Your task to perform on an android device: change text size in settings app Image 0: 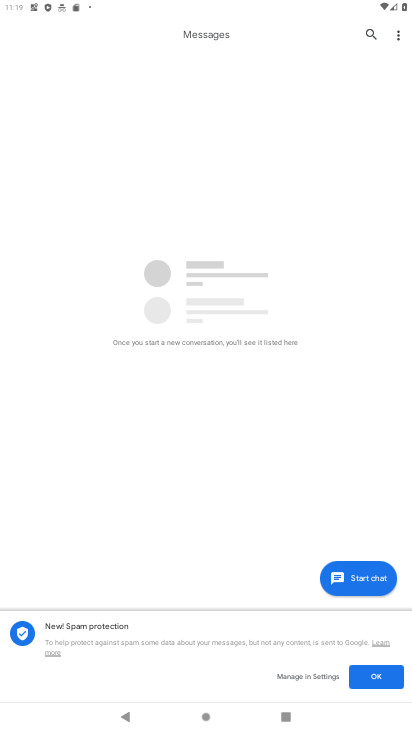
Step 0: press home button
Your task to perform on an android device: change text size in settings app Image 1: 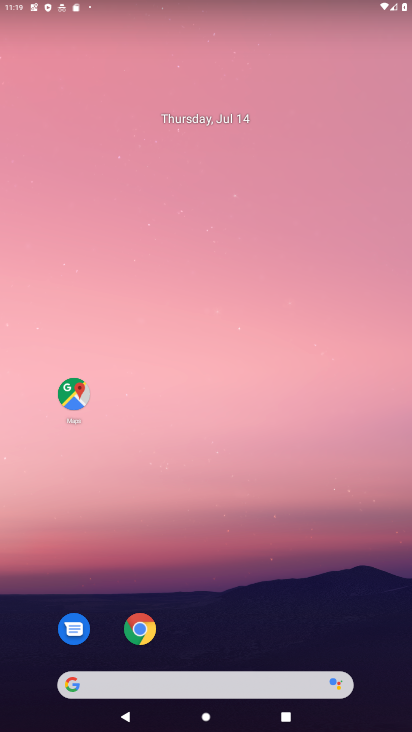
Step 1: drag from (263, 630) to (256, 186)
Your task to perform on an android device: change text size in settings app Image 2: 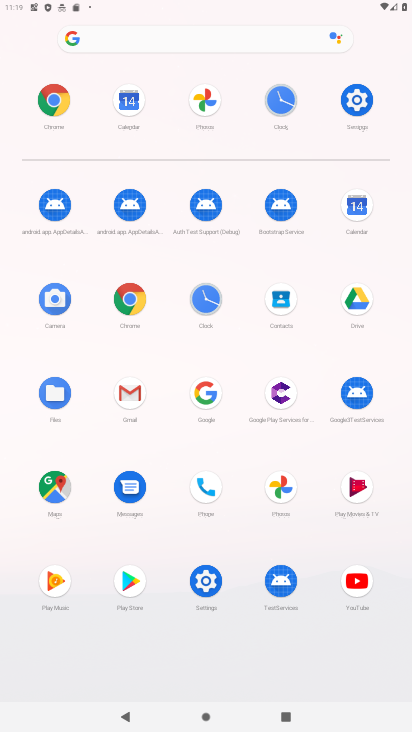
Step 2: click (347, 110)
Your task to perform on an android device: change text size in settings app Image 3: 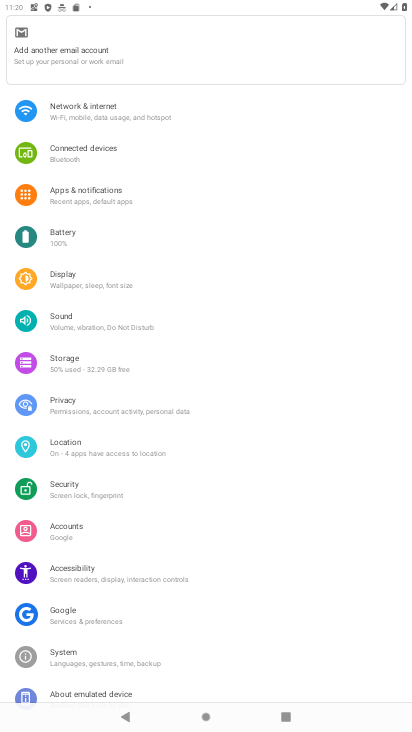
Step 3: click (67, 279)
Your task to perform on an android device: change text size in settings app Image 4: 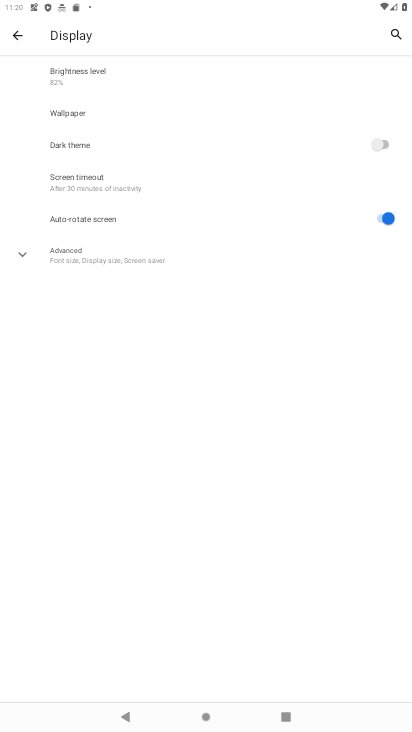
Step 4: click (25, 258)
Your task to perform on an android device: change text size in settings app Image 5: 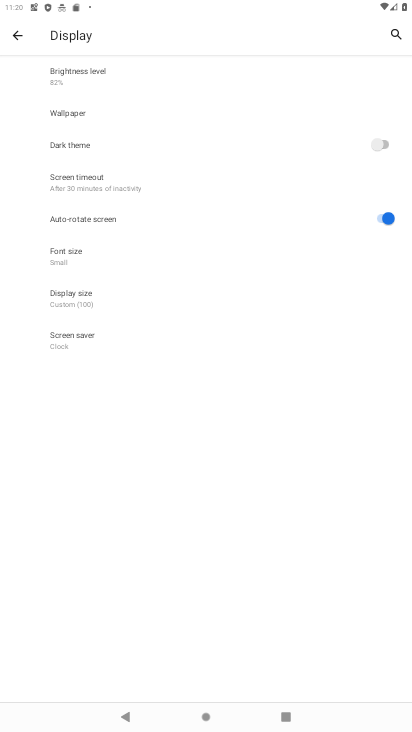
Step 5: click (66, 248)
Your task to perform on an android device: change text size in settings app Image 6: 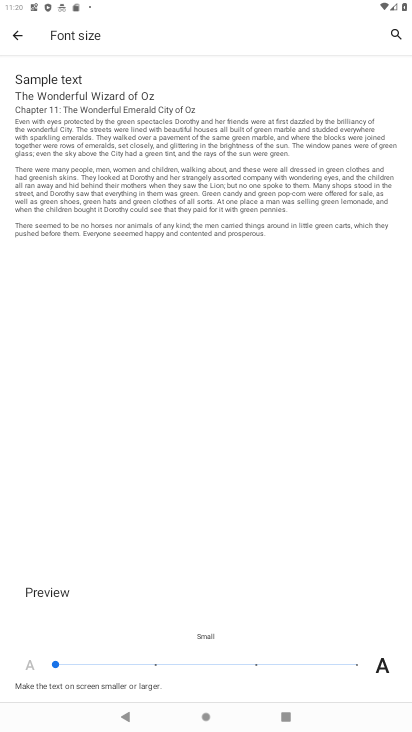
Step 6: click (160, 665)
Your task to perform on an android device: change text size in settings app Image 7: 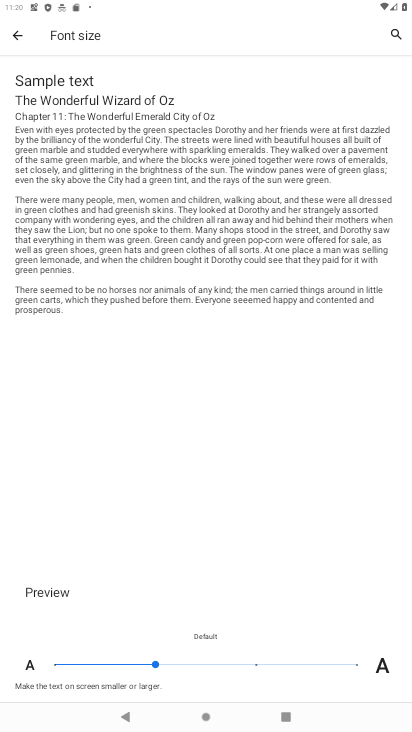
Step 7: click (252, 664)
Your task to perform on an android device: change text size in settings app Image 8: 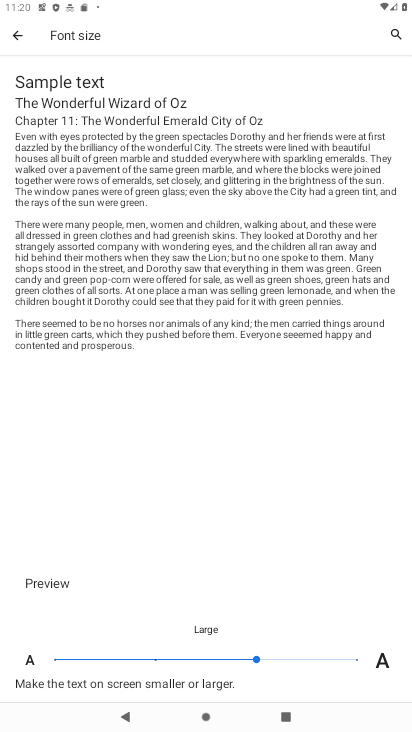
Step 8: task complete